Your task to perform on an android device: Show me recent news Image 0: 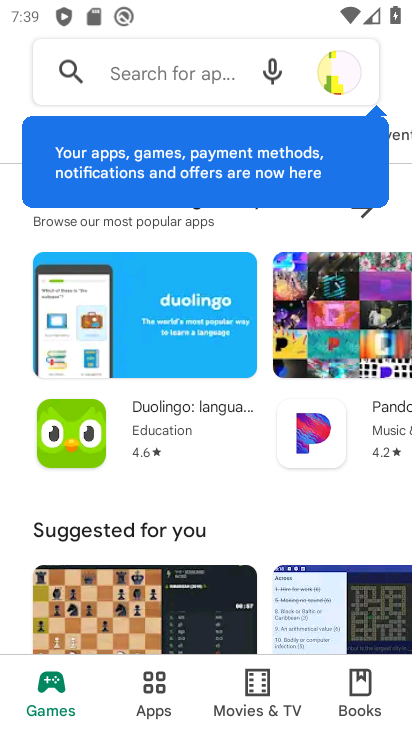
Step 0: press home button
Your task to perform on an android device: Show me recent news Image 1: 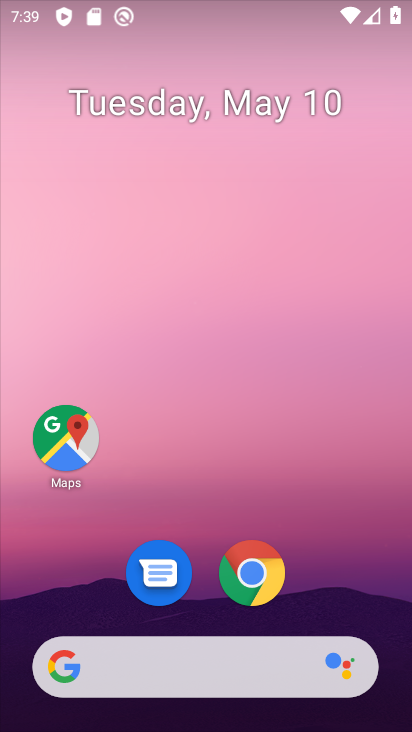
Step 1: drag from (384, 564) to (365, 82)
Your task to perform on an android device: Show me recent news Image 2: 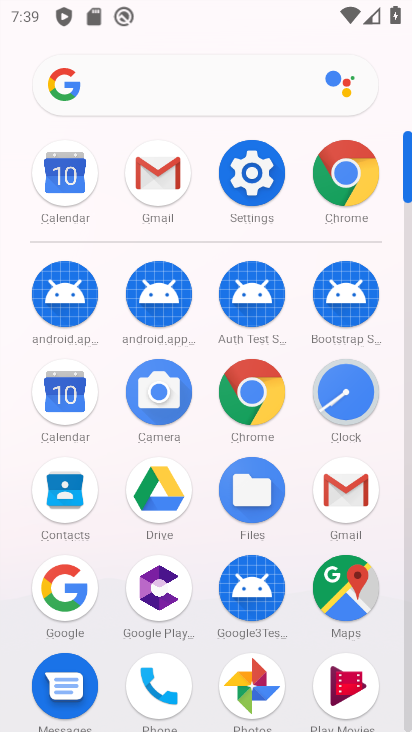
Step 2: click (233, 376)
Your task to perform on an android device: Show me recent news Image 3: 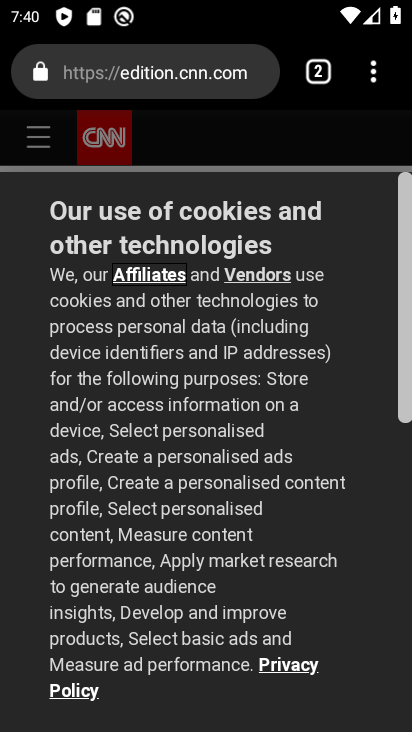
Step 3: click (141, 68)
Your task to perform on an android device: Show me recent news Image 4: 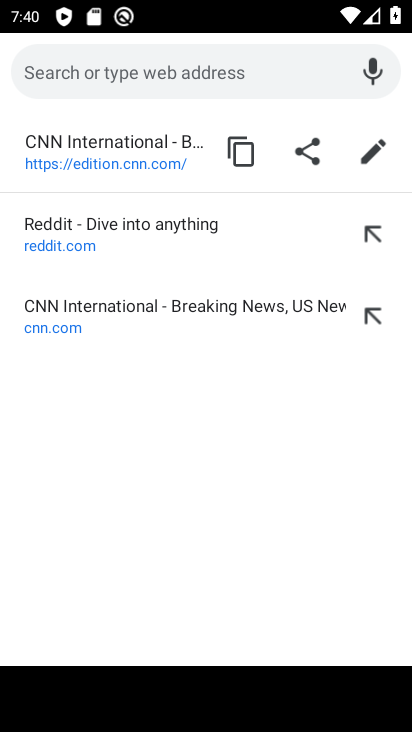
Step 4: type "recent news"
Your task to perform on an android device: Show me recent news Image 5: 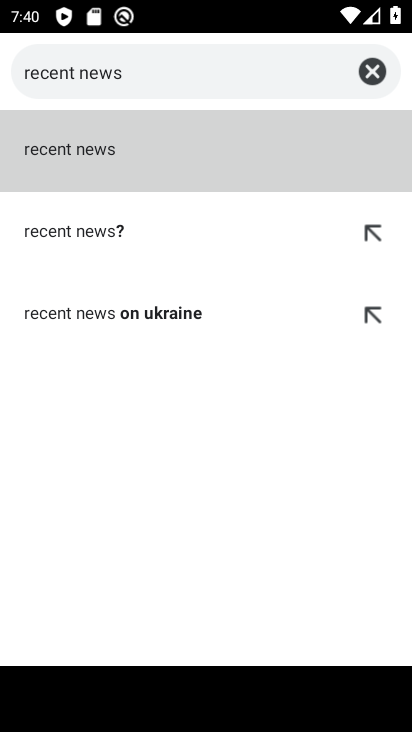
Step 5: click (96, 147)
Your task to perform on an android device: Show me recent news Image 6: 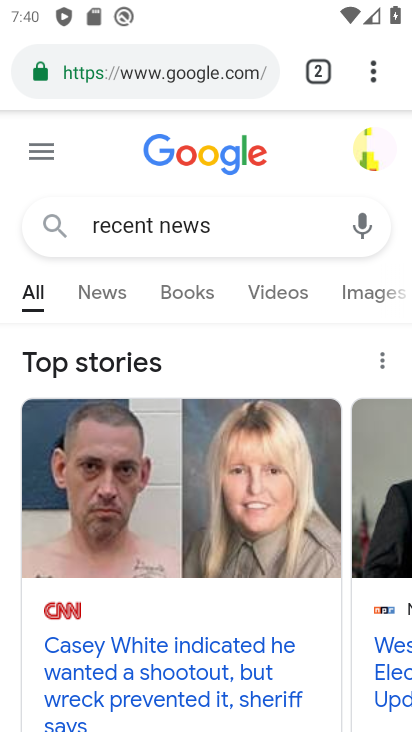
Step 6: task complete